Your task to perform on an android device: find snoozed emails in the gmail app Image 0: 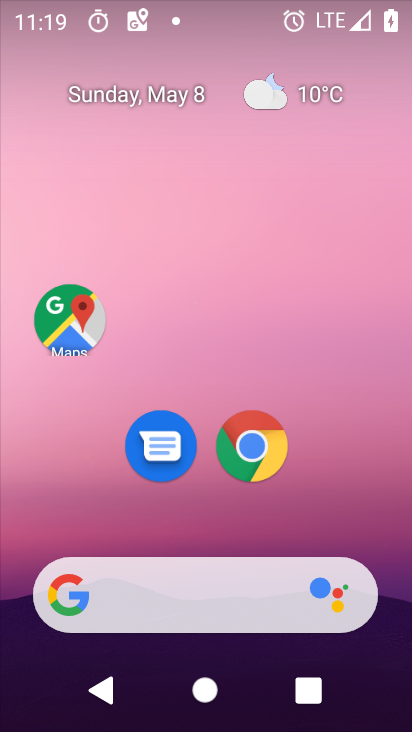
Step 0: drag from (376, 537) to (338, 4)
Your task to perform on an android device: find snoozed emails in the gmail app Image 1: 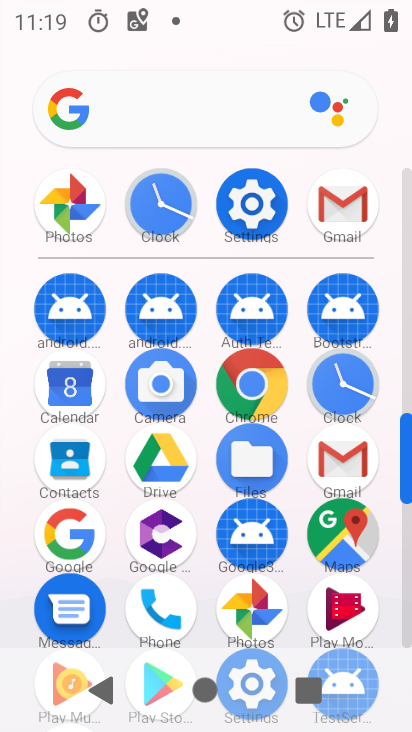
Step 1: click (342, 214)
Your task to perform on an android device: find snoozed emails in the gmail app Image 2: 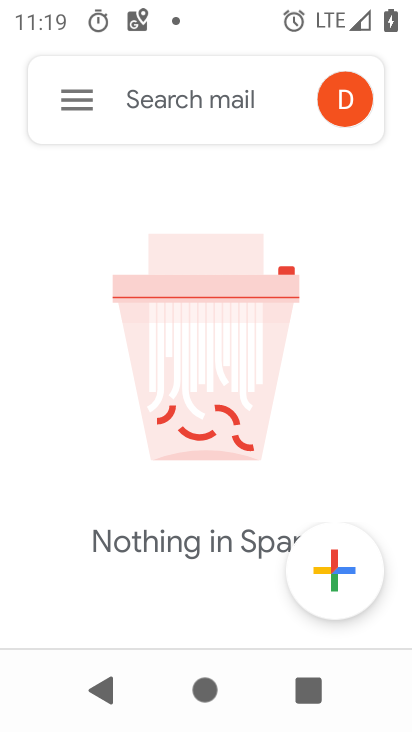
Step 2: click (66, 106)
Your task to perform on an android device: find snoozed emails in the gmail app Image 3: 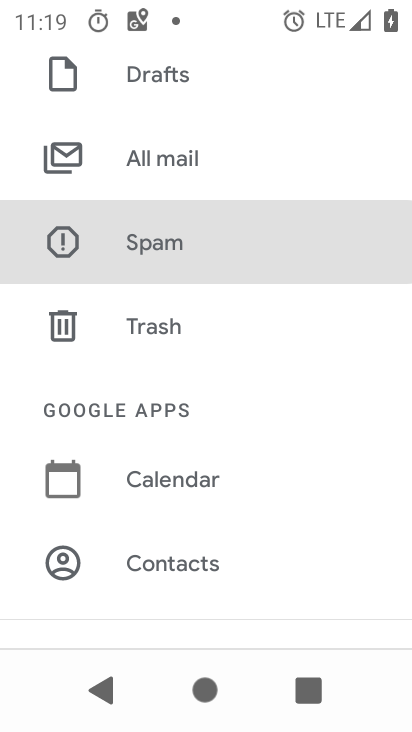
Step 3: drag from (273, 222) to (269, 663)
Your task to perform on an android device: find snoozed emails in the gmail app Image 4: 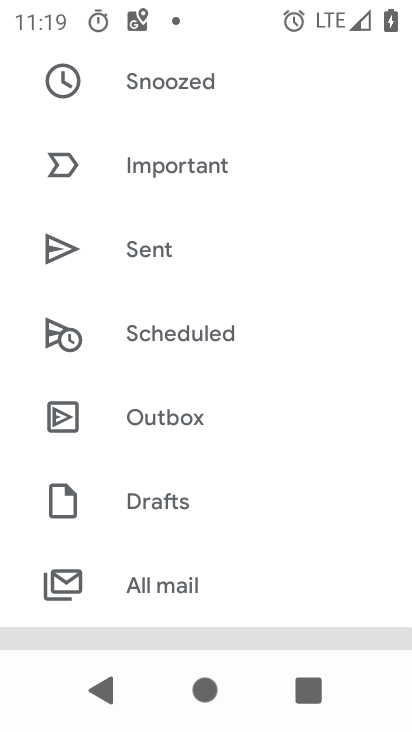
Step 4: drag from (273, 267) to (275, 577)
Your task to perform on an android device: find snoozed emails in the gmail app Image 5: 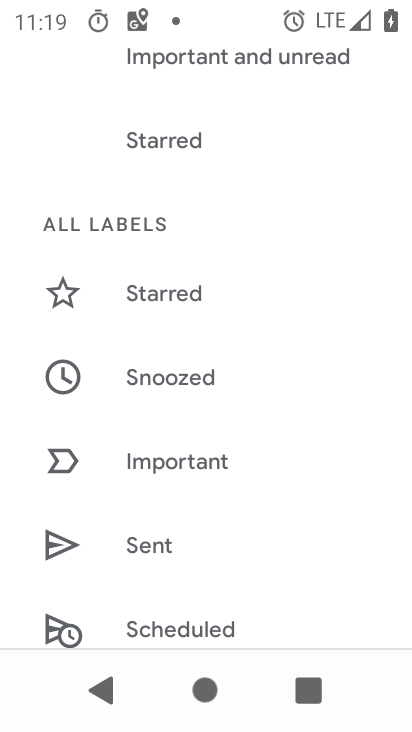
Step 5: click (167, 382)
Your task to perform on an android device: find snoozed emails in the gmail app Image 6: 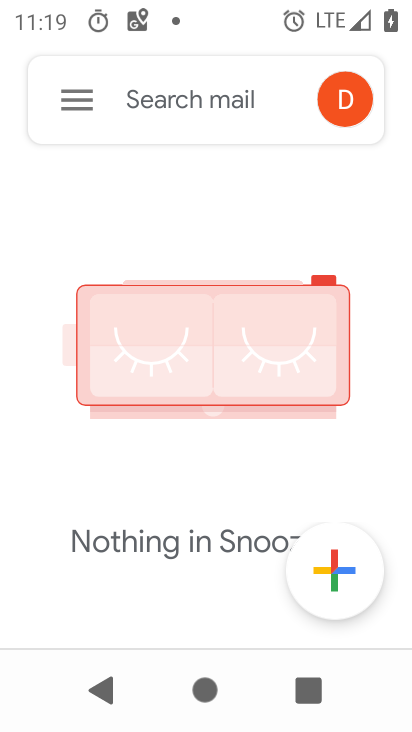
Step 6: task complete